Your task to perform on an android device: Install the eBay app Image 0: 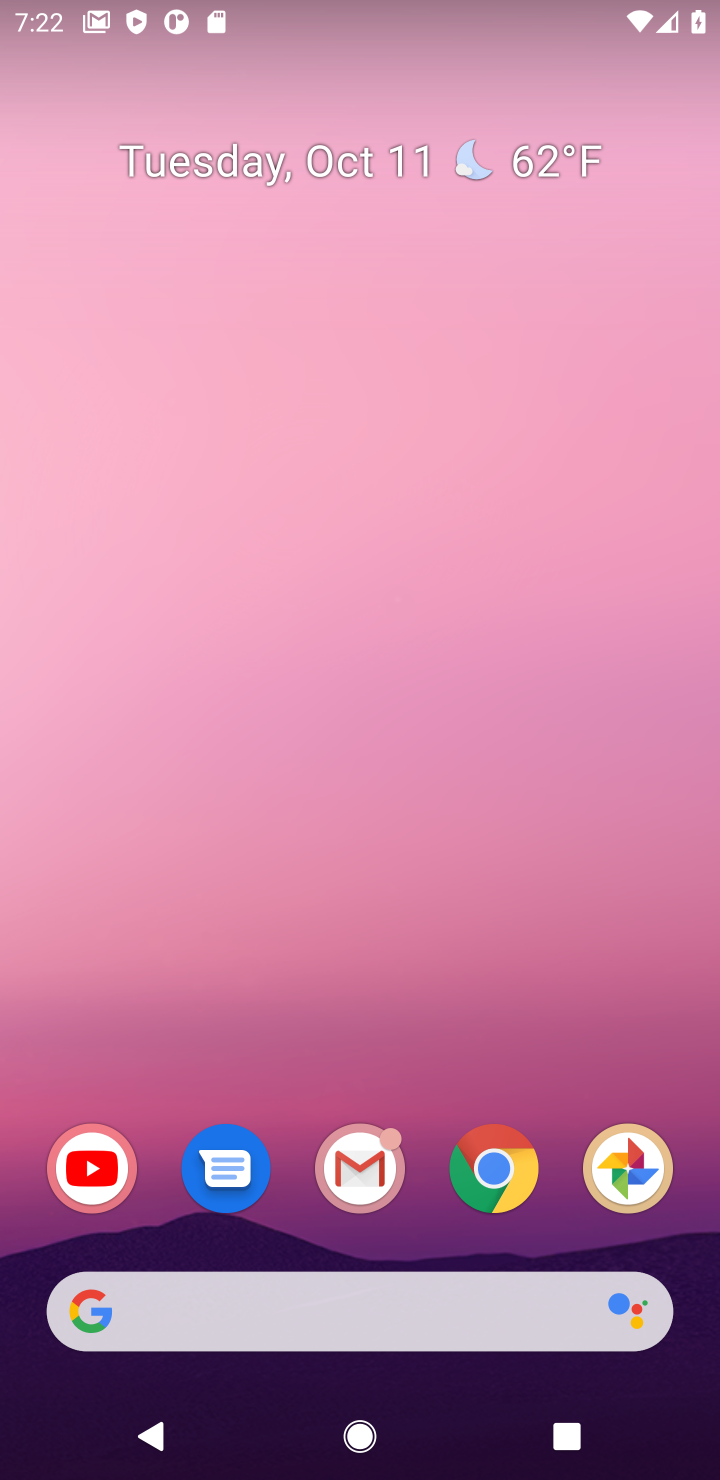
Step 0: click (486, 1152)
Your task to perform on an android device: Install the eBay app Image 1: 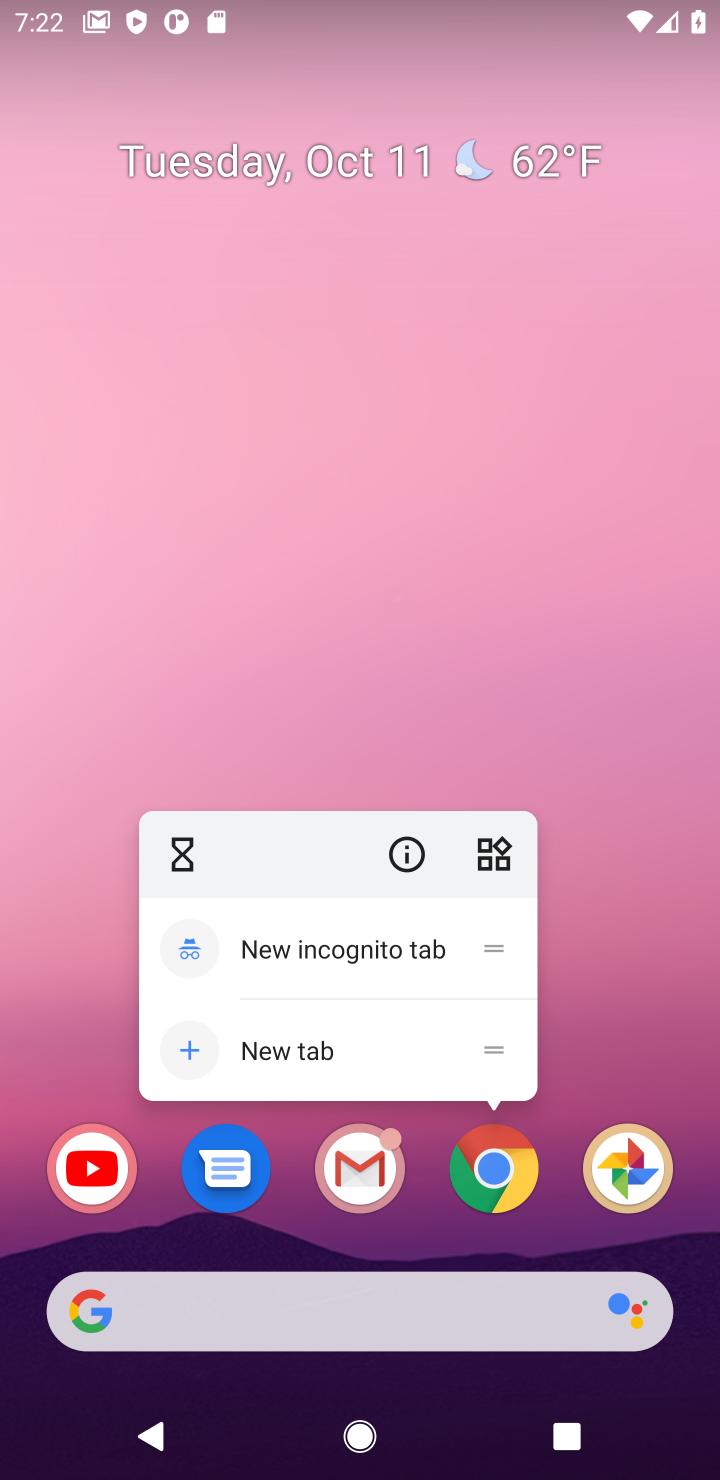
Step 1: drag from (400, 764) to (415, 419)
Your task to perform on an android device: Install the eBay app Image 2: 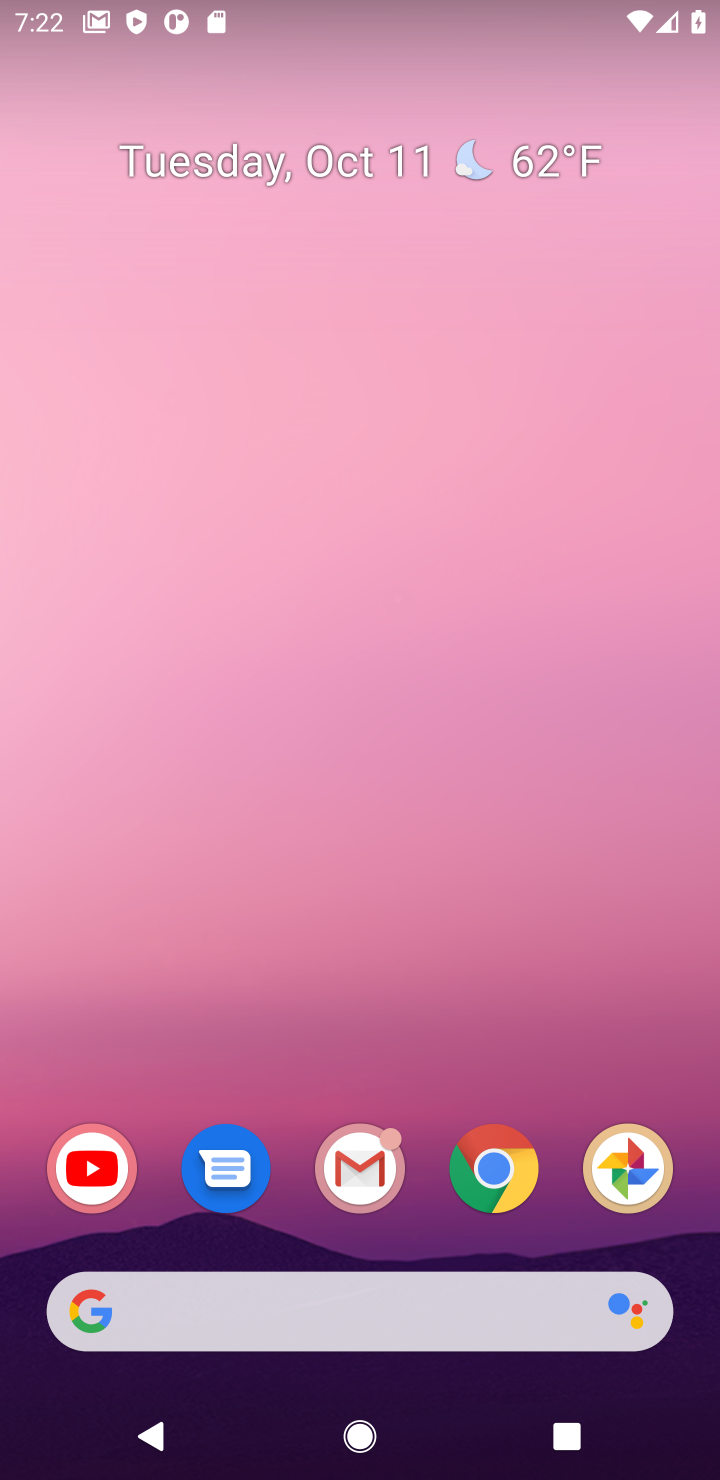
Step 2: drag from (401, 1036) to (415, 369)
Your task to perform on an android device: Install the eBay app Image 3: 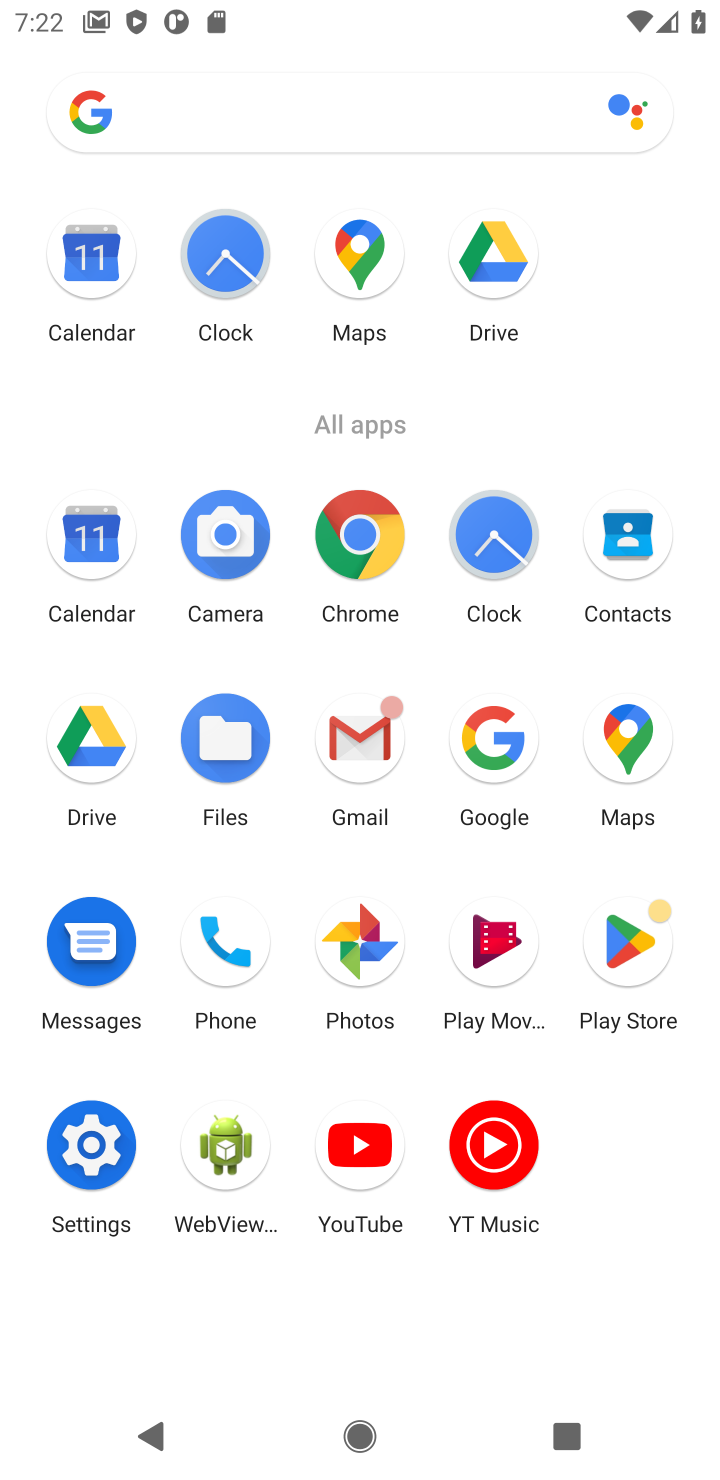
Step 3: click (629, 948)
Your task to perform on an android device: Install the eBay app Image 4: 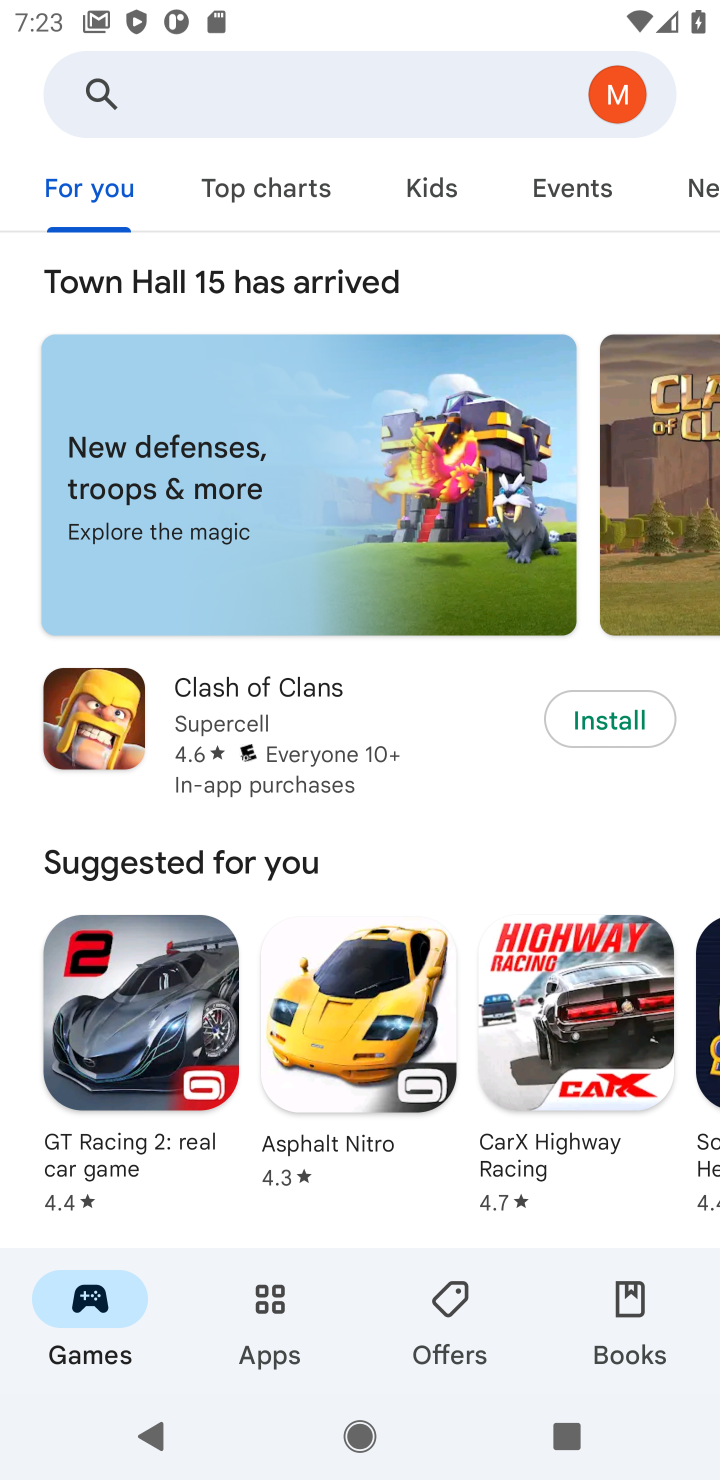
Step 4: click (356, 91)
Your task to perform on an android device: Install the eBay app Image 5: 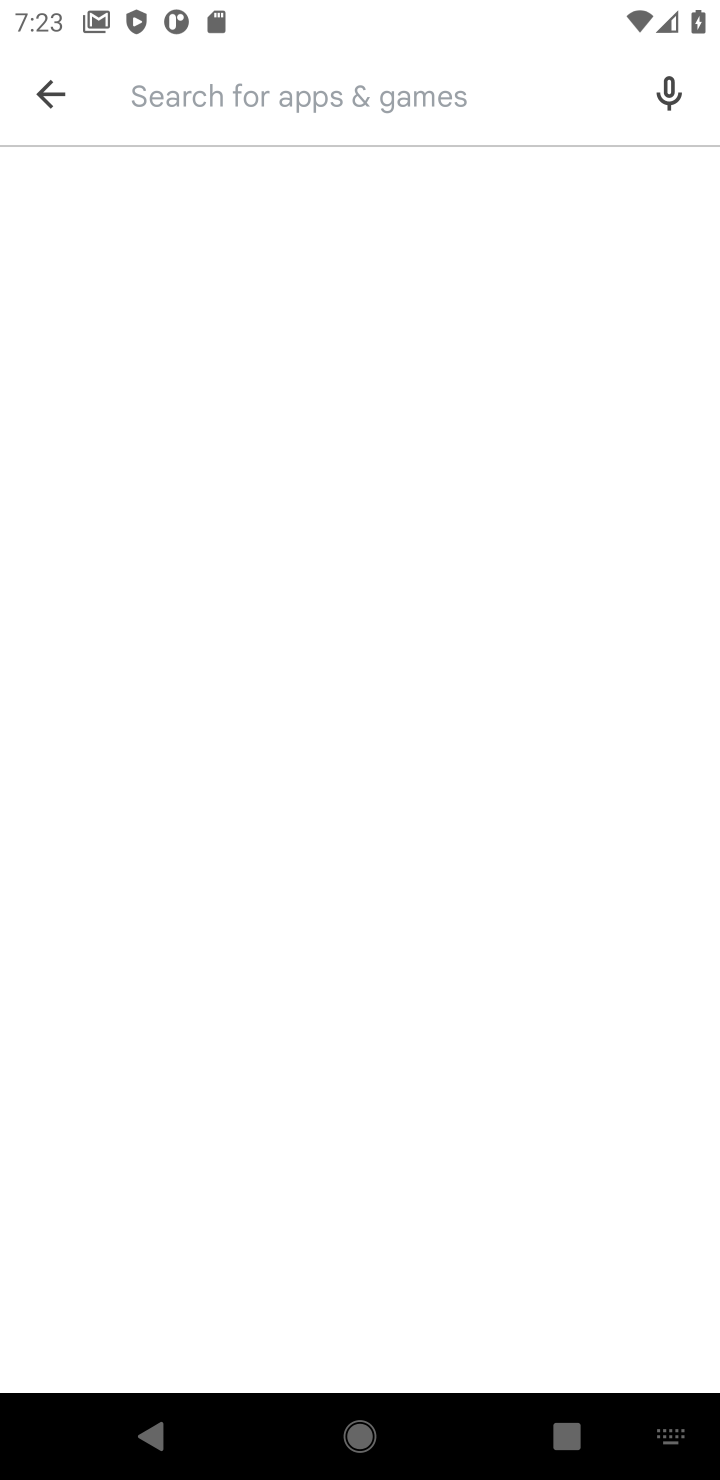
Step 5: type "ebay"
Your task to perform on an android device: Install the eBay app Image 6: 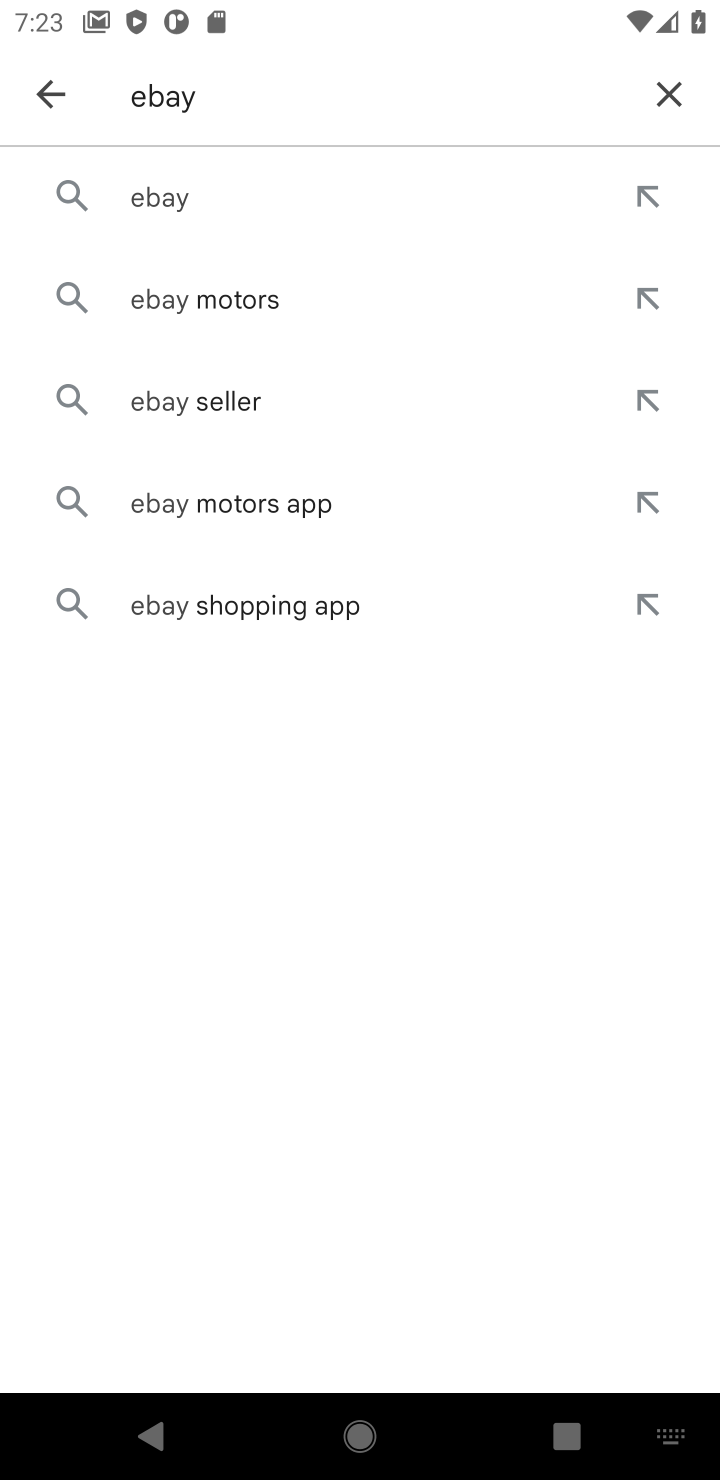
Step 6: click (169, 196)
Your task to perform on an android device: Install the eBay app Image 7: 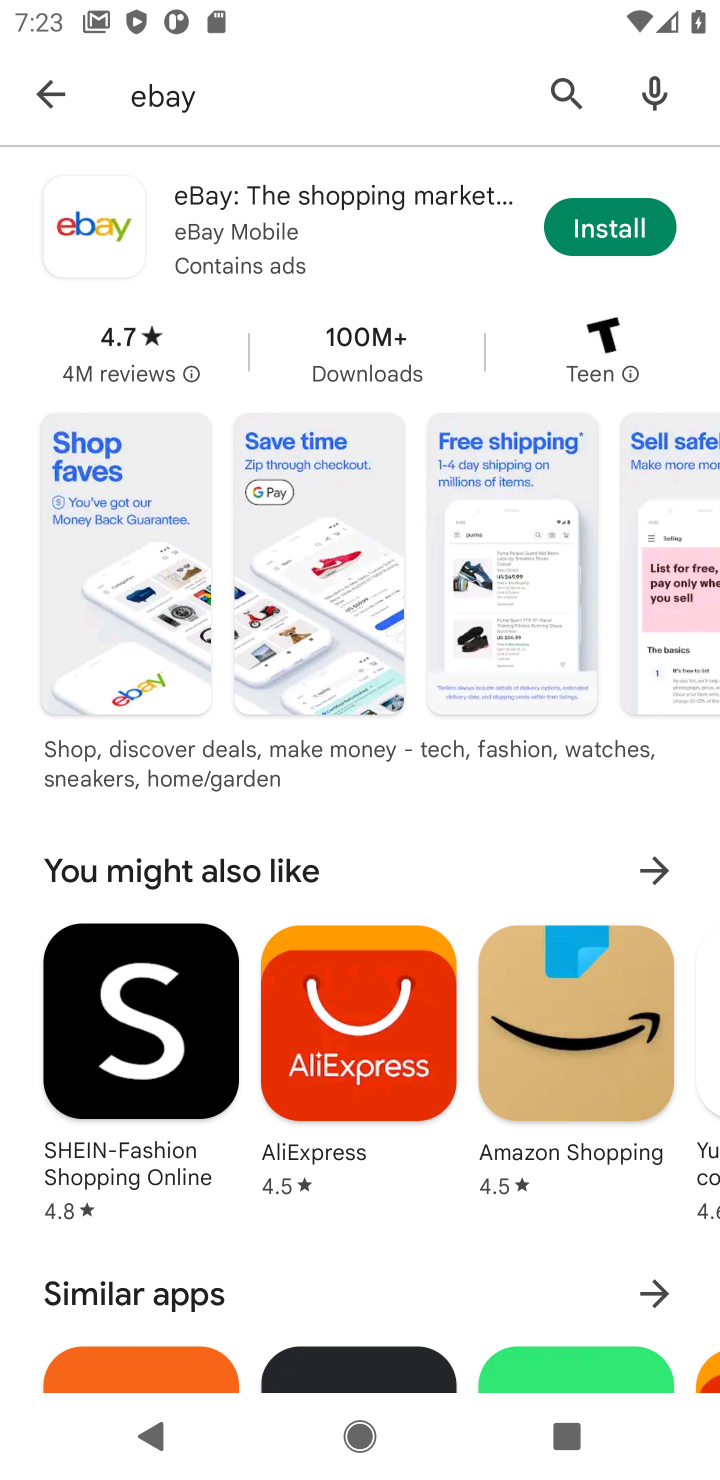
Step 7: click (586, 237)
Your task to perform on an android device: Install the eBay app Image 8: 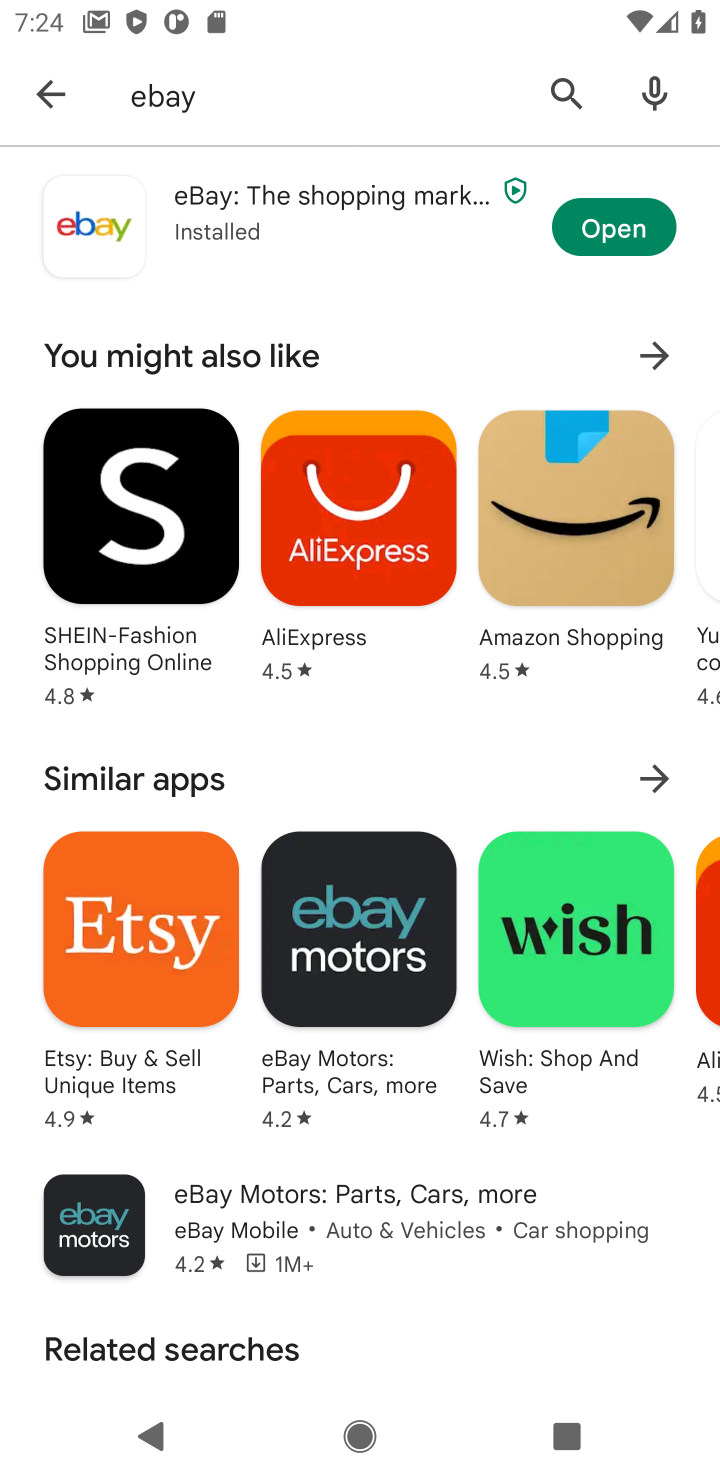
Step 8: click (623, 211)
Your task to perform on an android device: Install the eBay app Image 9: 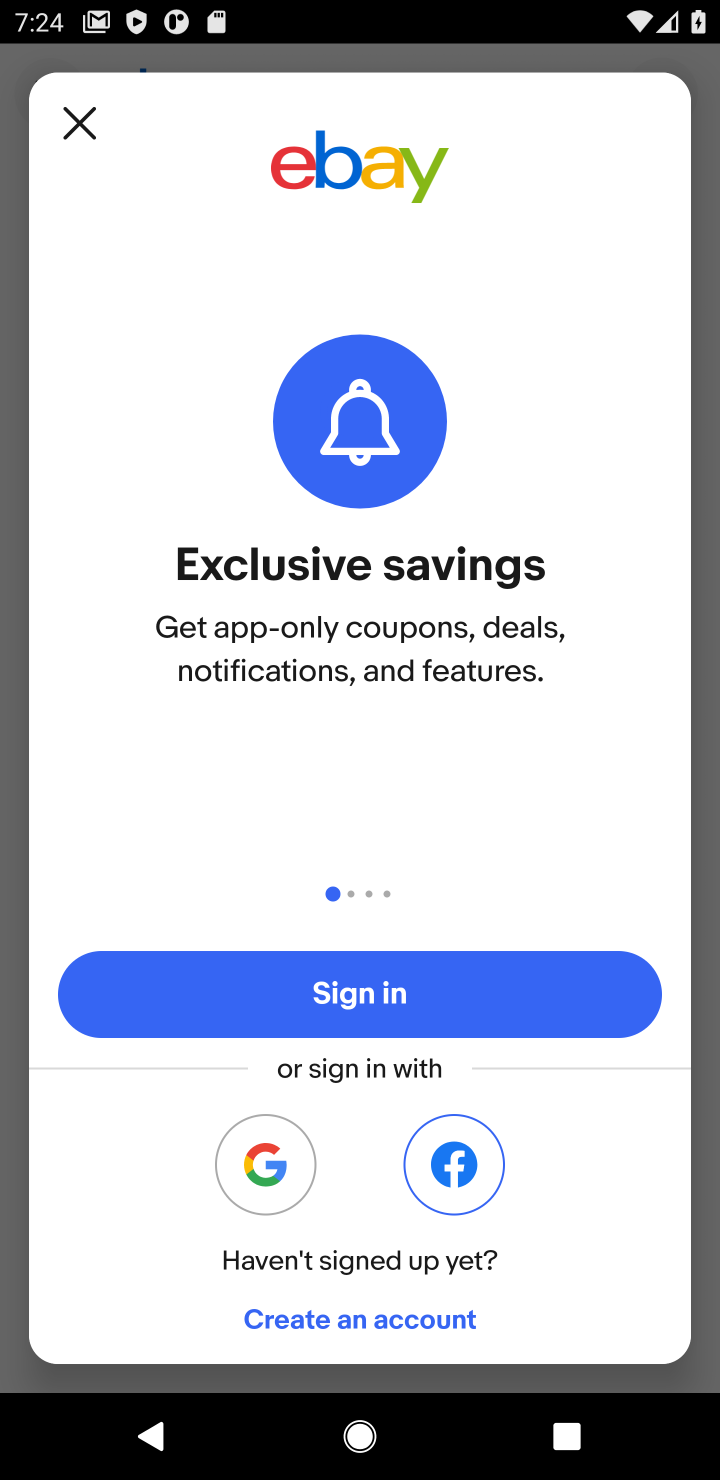
Step 9: task complete